Your task to perform on an android device: move a message to another label in the gmail app Image 0: 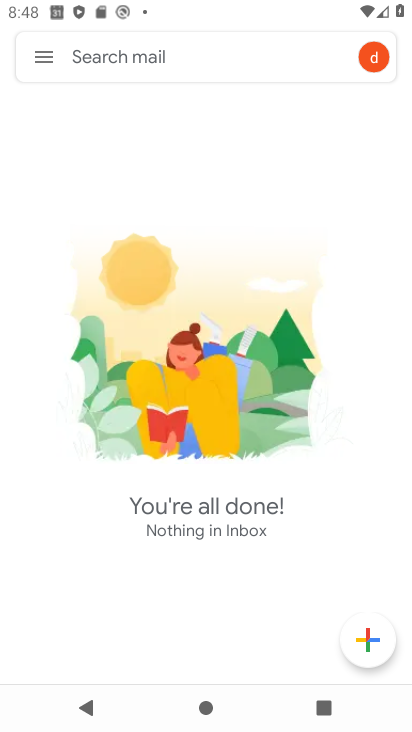
Step 0: task impossible